Your task to perform on an android device: Open Google Chrome Image 0: 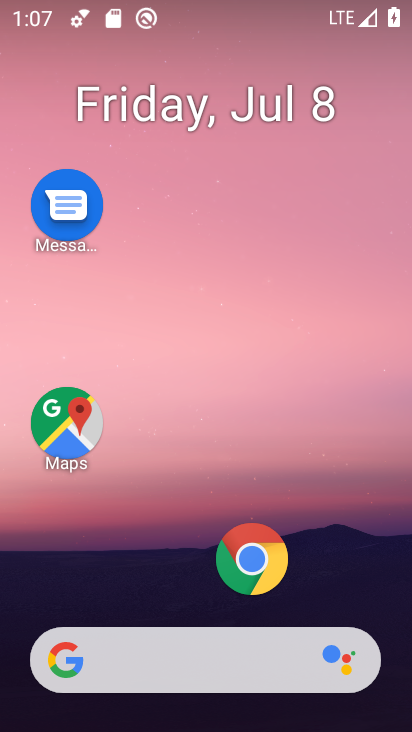
Step 0: click (232, 575)
Your task to perform on an android device: Open Google Chrome Image 1: 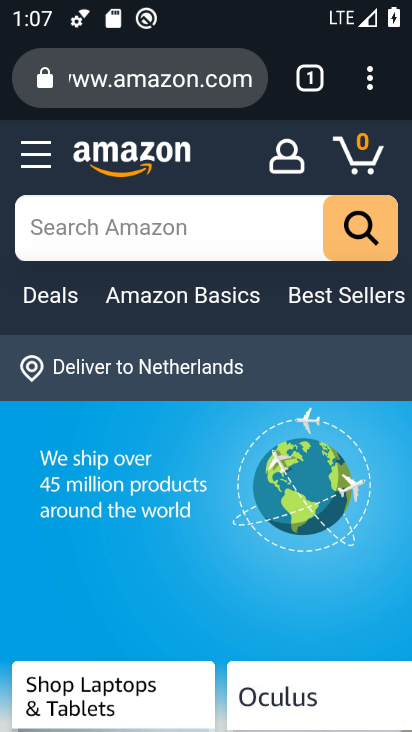
Step 1: task complete